Your task to perform on an android device: Open Wikipedia Image 0: 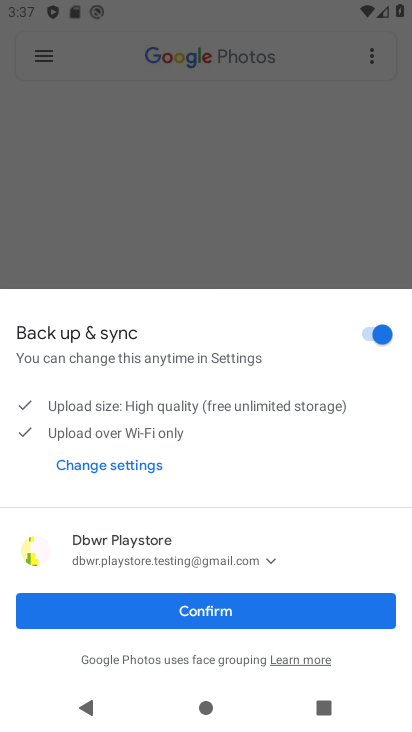
Step 0: press home button
Your task to perform on an android device: Open Wikipedia Image 1: 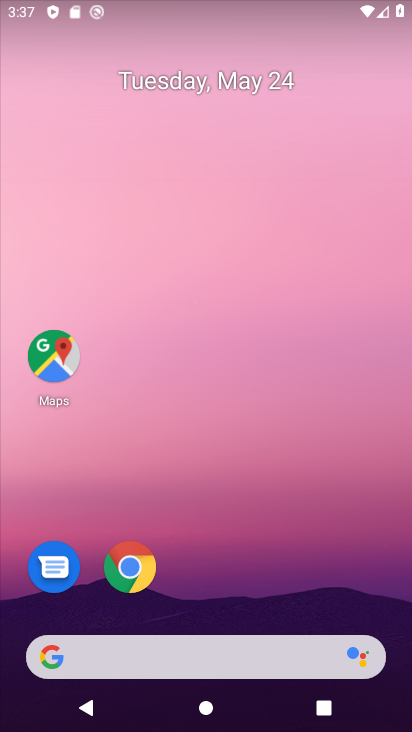
Step 1: click (131, 566)
Your task to perform on an android device: Open Wikipedia Image 2: 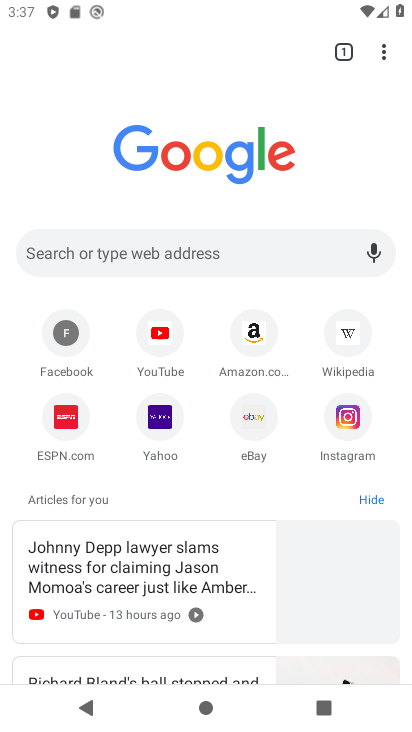
Step 2: click (344, 336)
Your task to perform on an android device: Open Wikipedia Image 3: 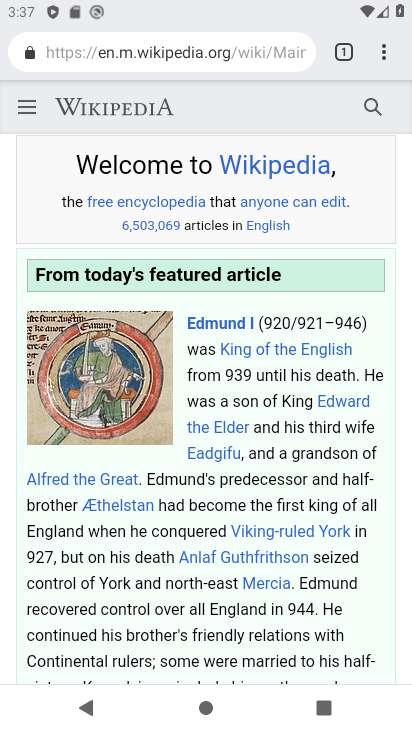
Step 3: task complete